Your task to perform on an android device: What's on my calendar tomorrow? Image 0: 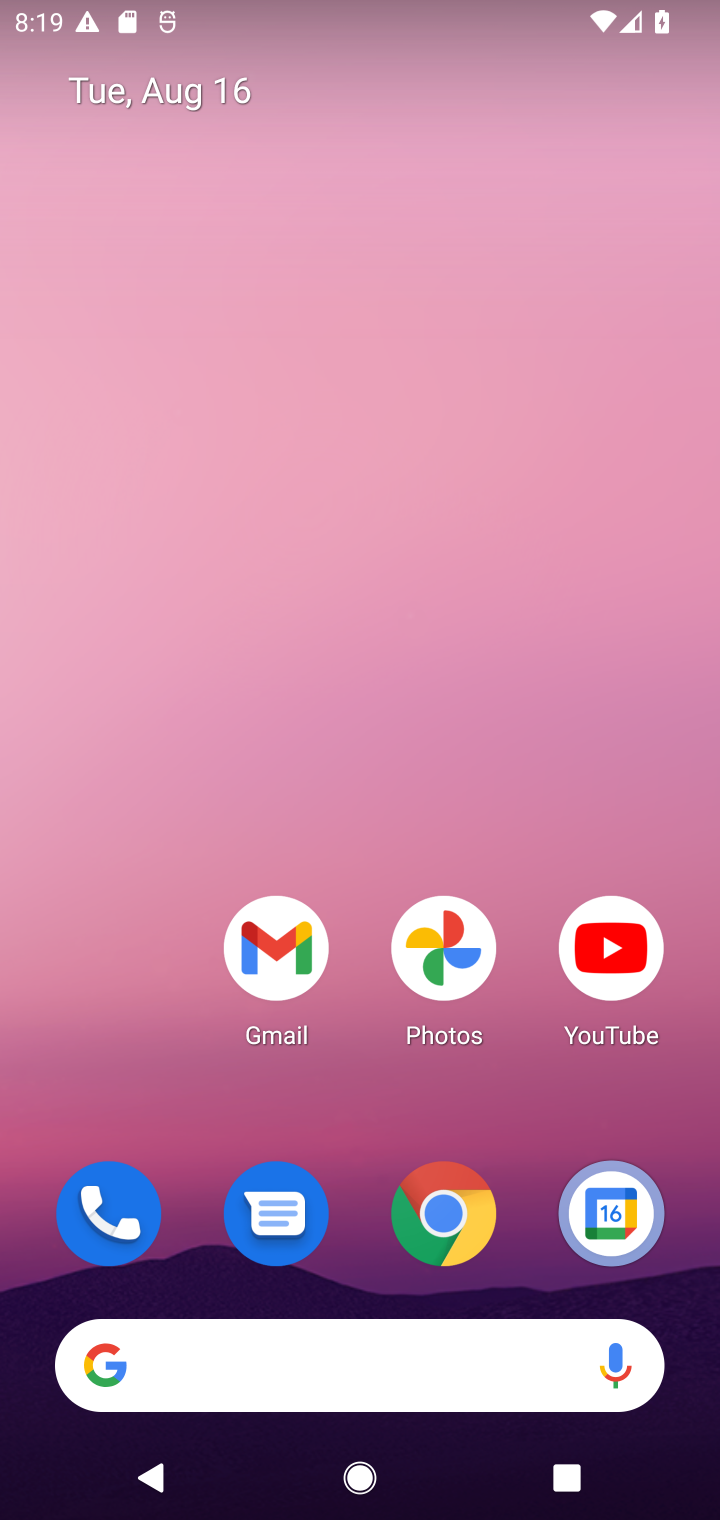
Step 0: drag from (303, 1214) to (427, 208)
Your task to perform on an android device: What's on my calendar tomorrow? Image 1: 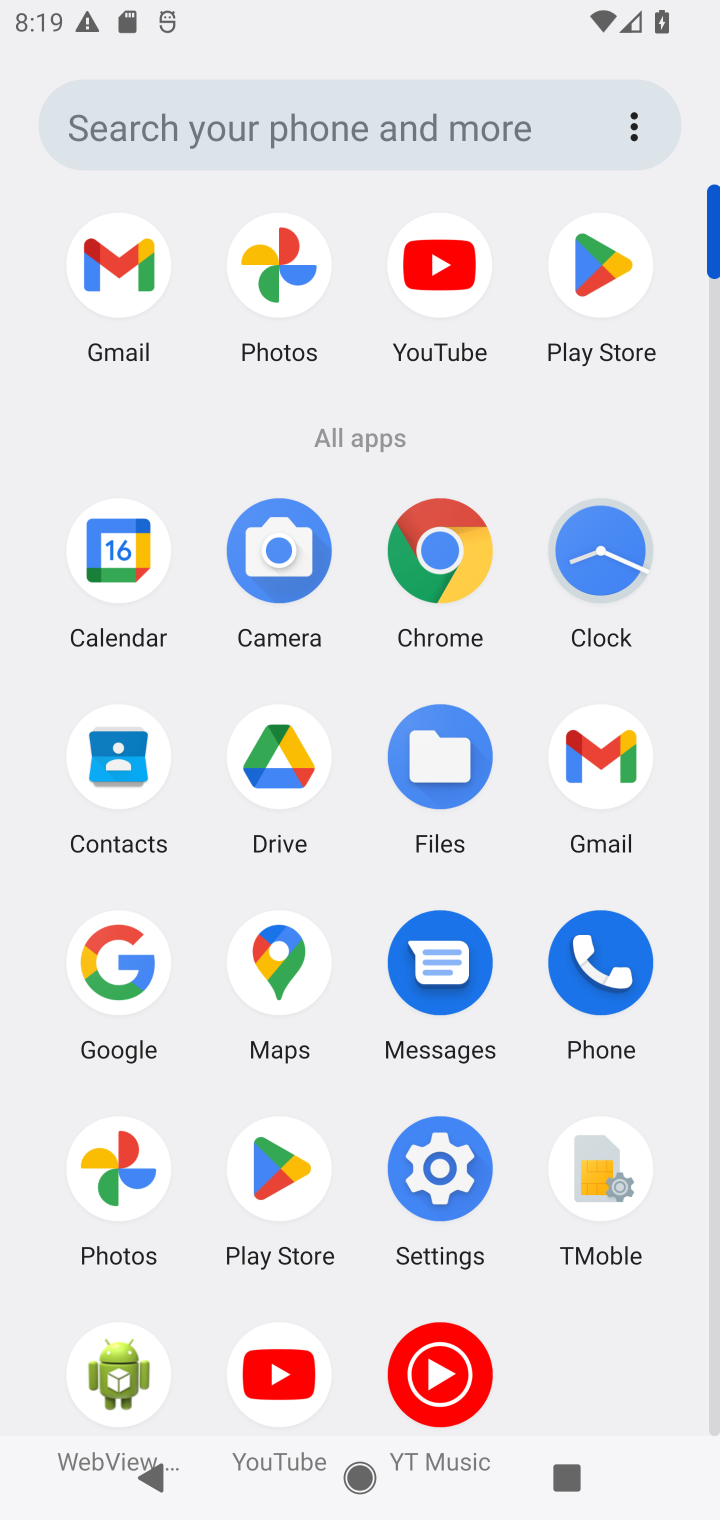
Step 1: click (117, 530)
Your task to perform on an android device: What's on my calendar tomorrow? Image 2: 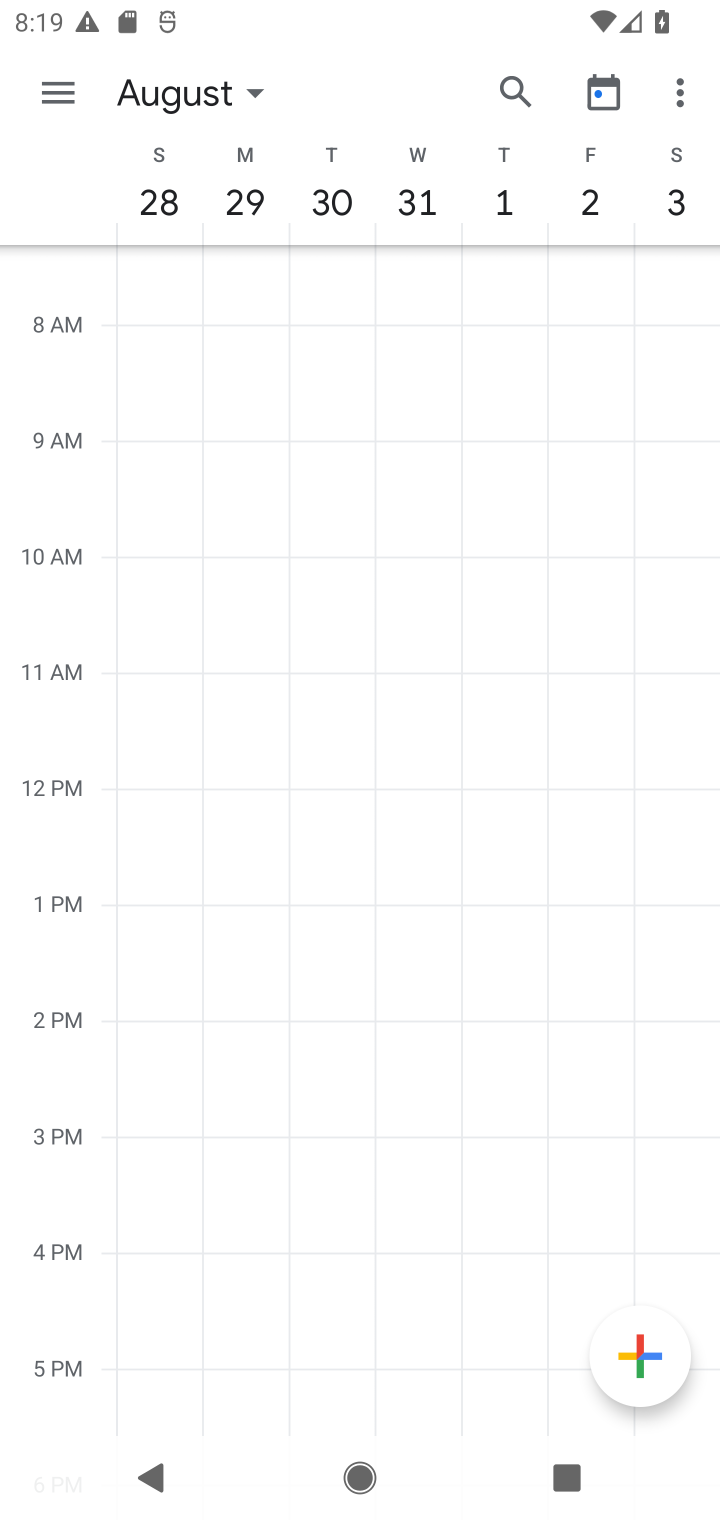
Step 2: click (77, 81)
Your task to perform on an android device: What's on my calendar tomorrow? Image 3: 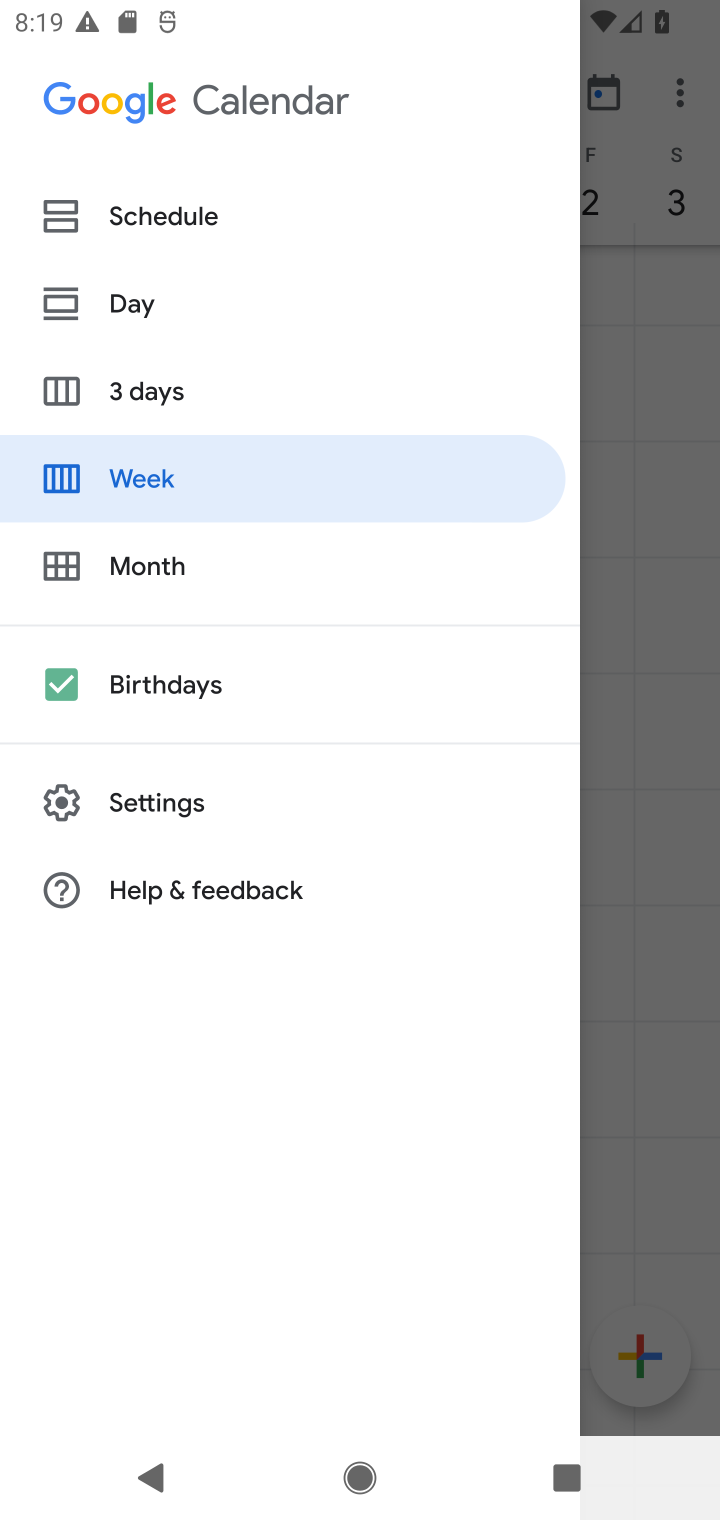
Step 3: click (182, 554)
Your task to perform on an android device: What's on my calendar tomorrow? Image 4: 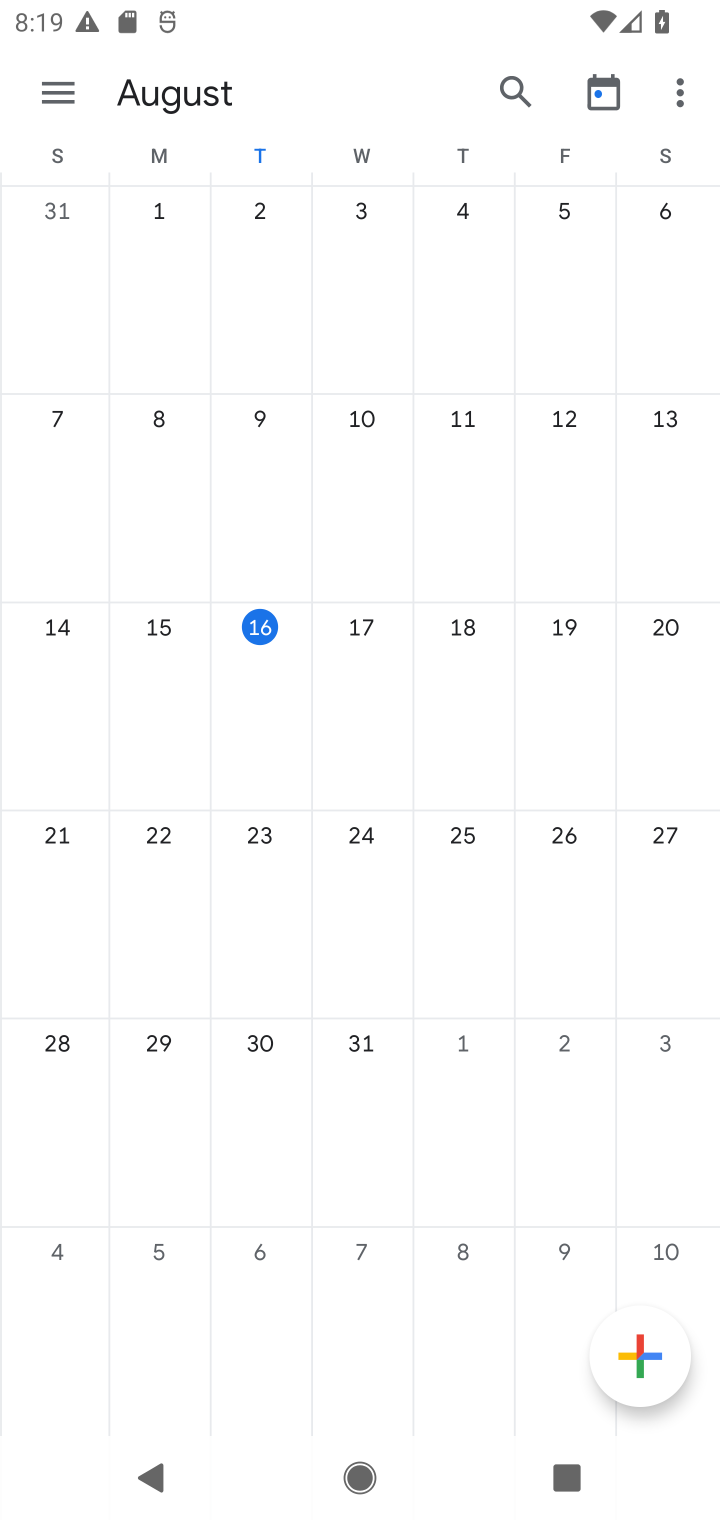
Step 4: click (349, 678)
Your task to perform on an android device: What's on my calendar tomorrow? Image 5: 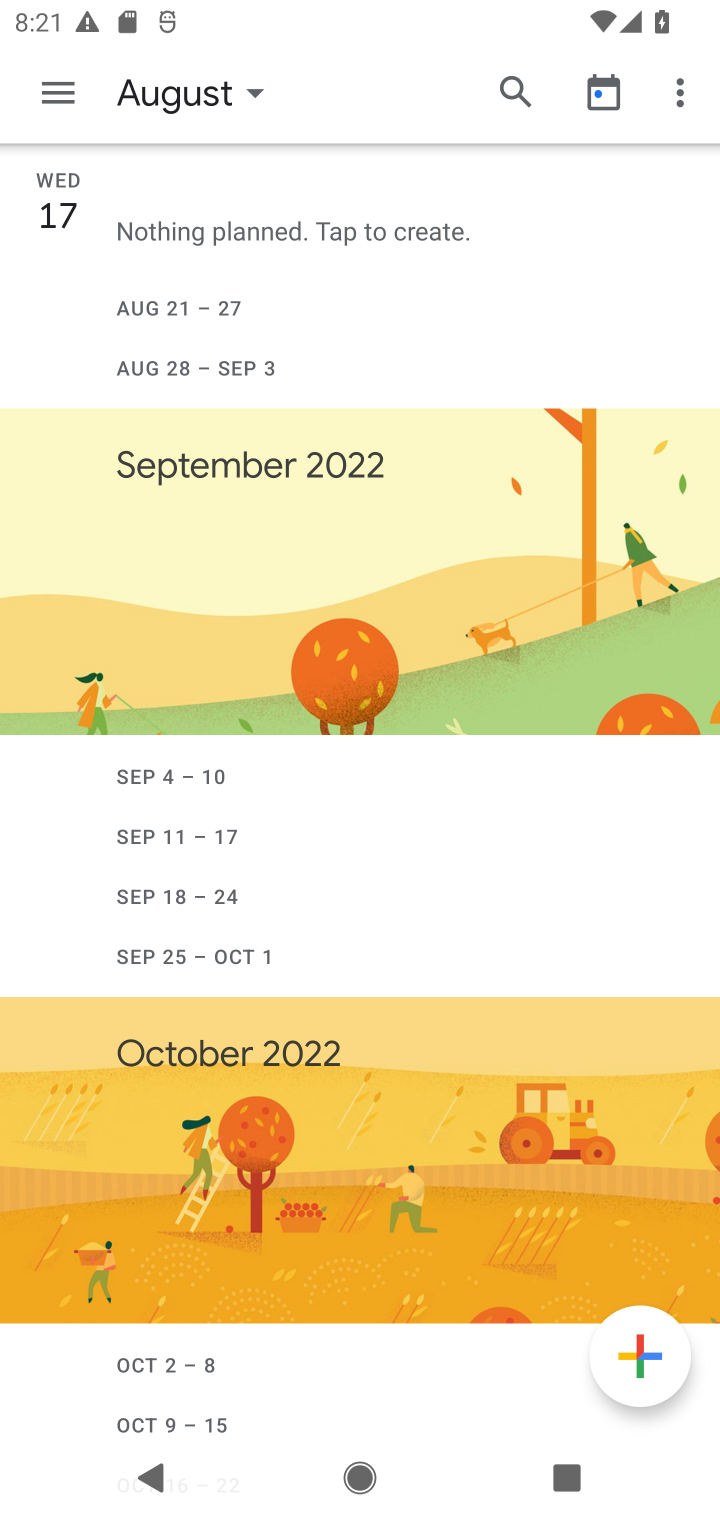
Step 5: task complete